Your task to perform on an android device: turn off wifi Image 0: 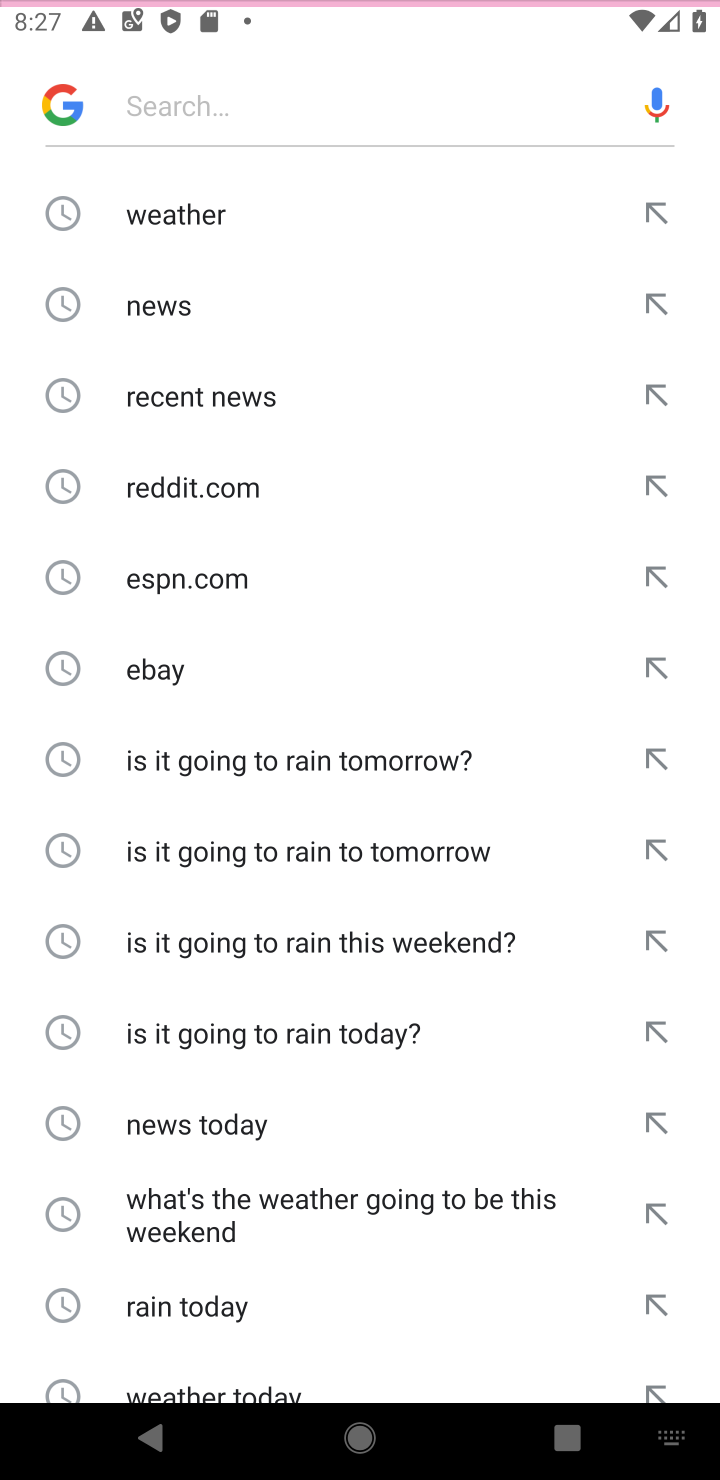
Step 0: press back button
Your task to perform on an android device: turn off wifi Image 1: 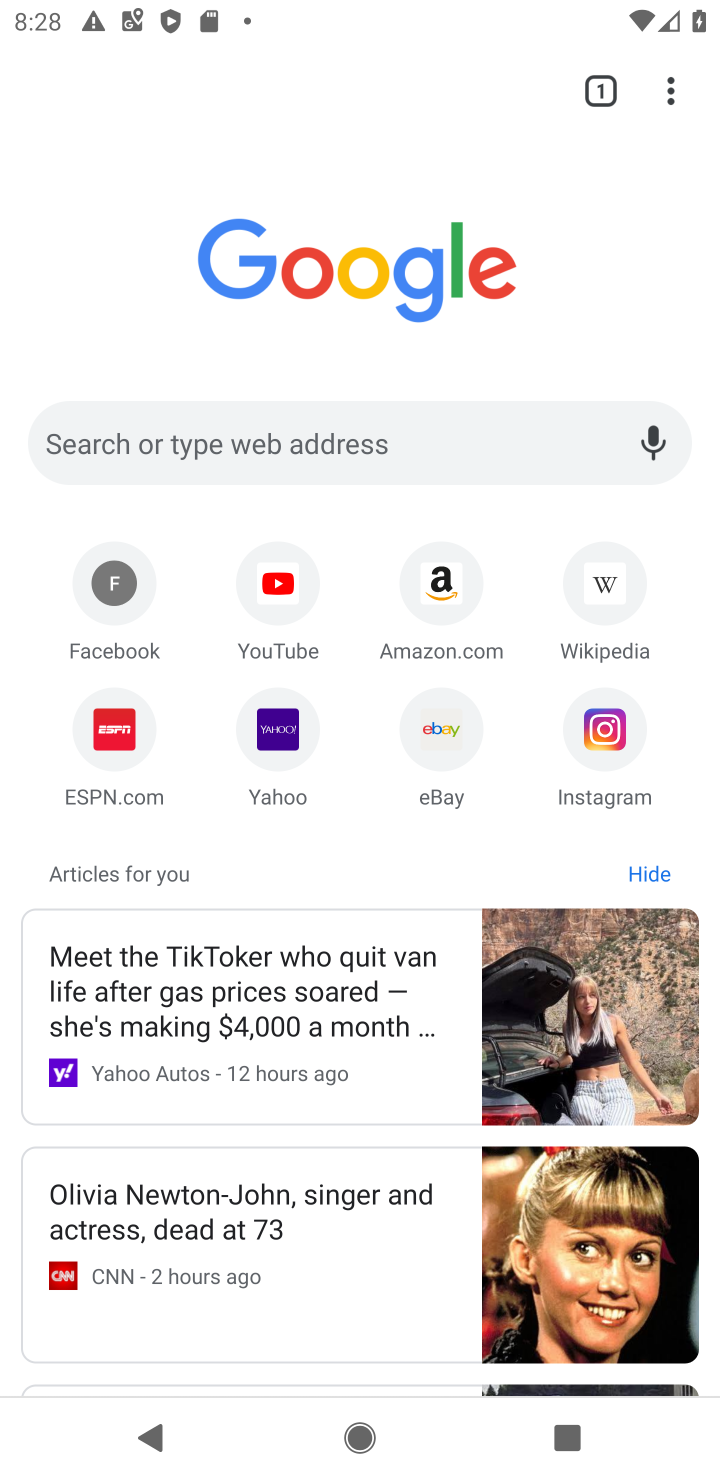
Step 1: drag from (189, 17) to (278, 1371)
Your task to perform on an android device: turn off wifi Image 2: 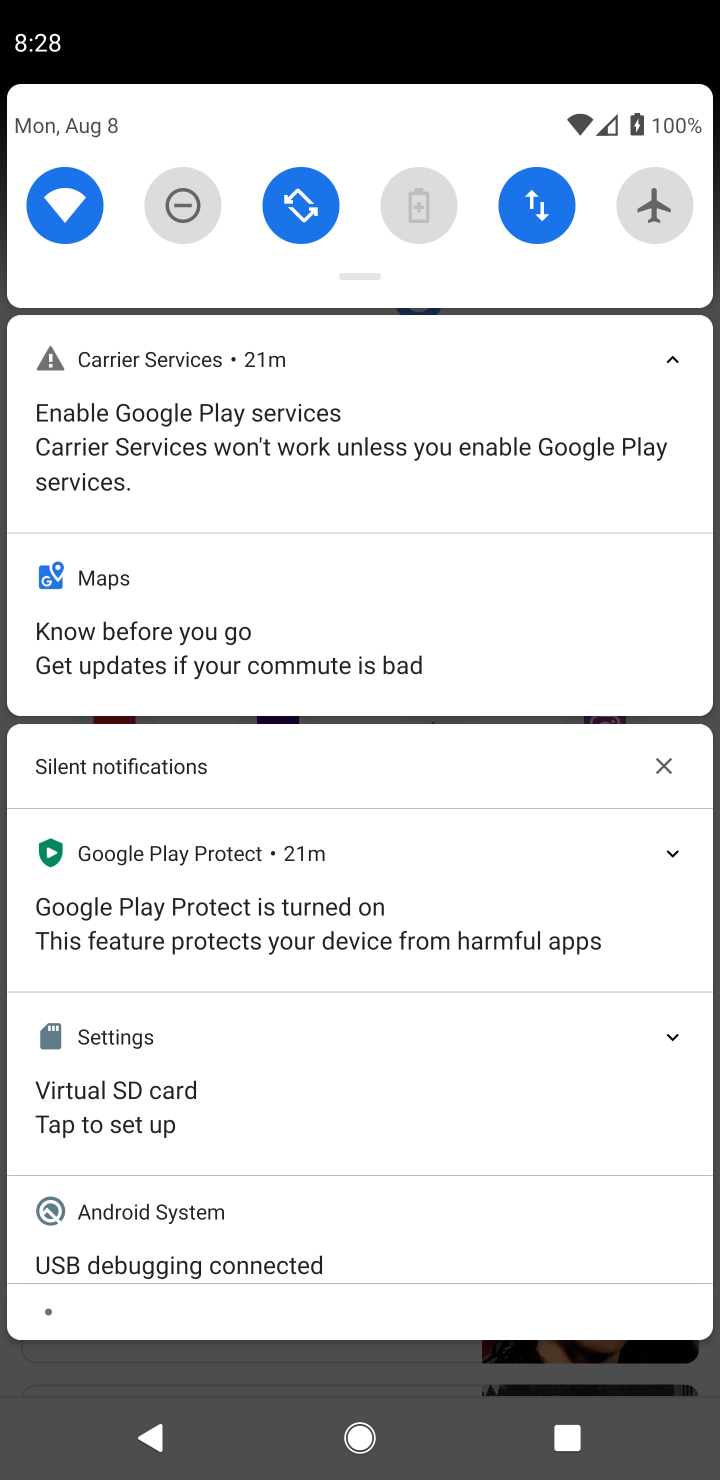
Step 2: click (72, 185)
Your task to perform on an android device: turn off wifi Image 3: 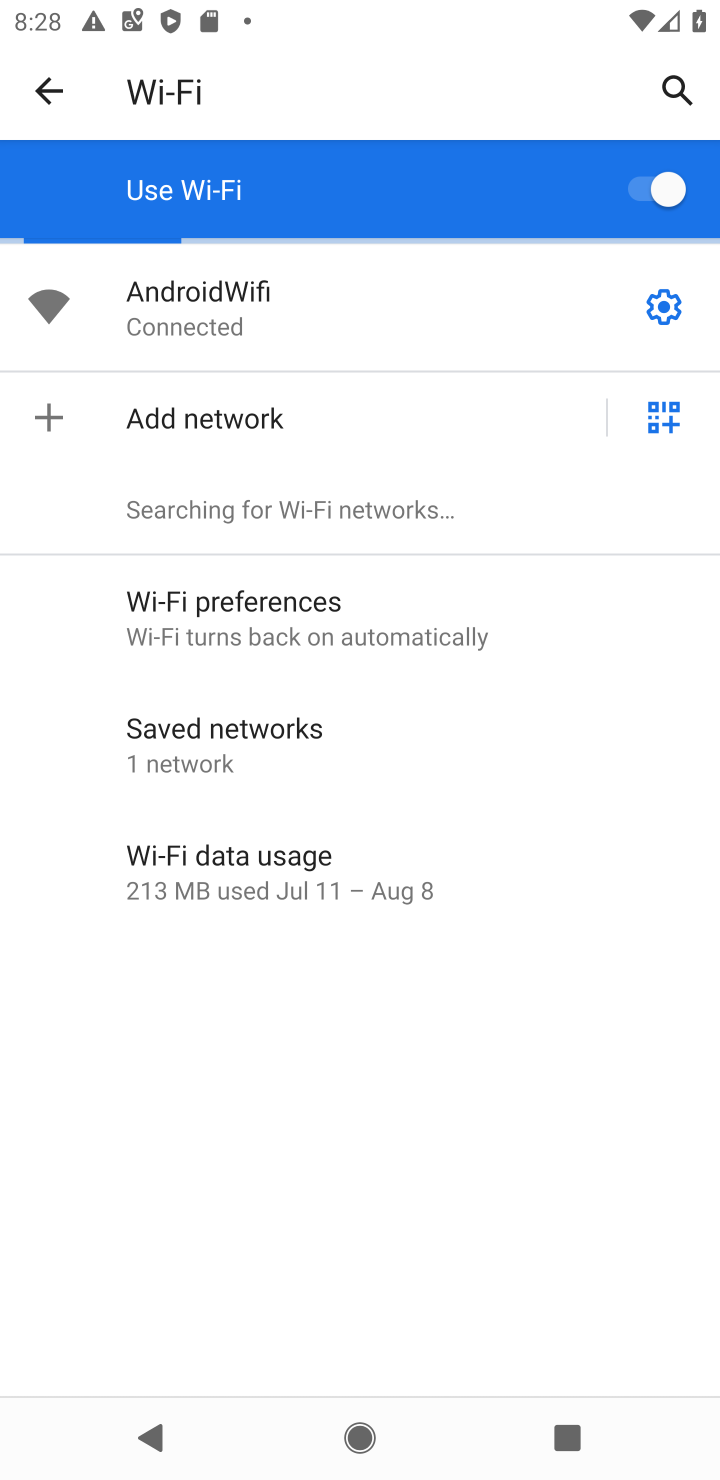
Step 3: click (665, 204)
Your task to perform on an android device: turn off wifi Image 4: 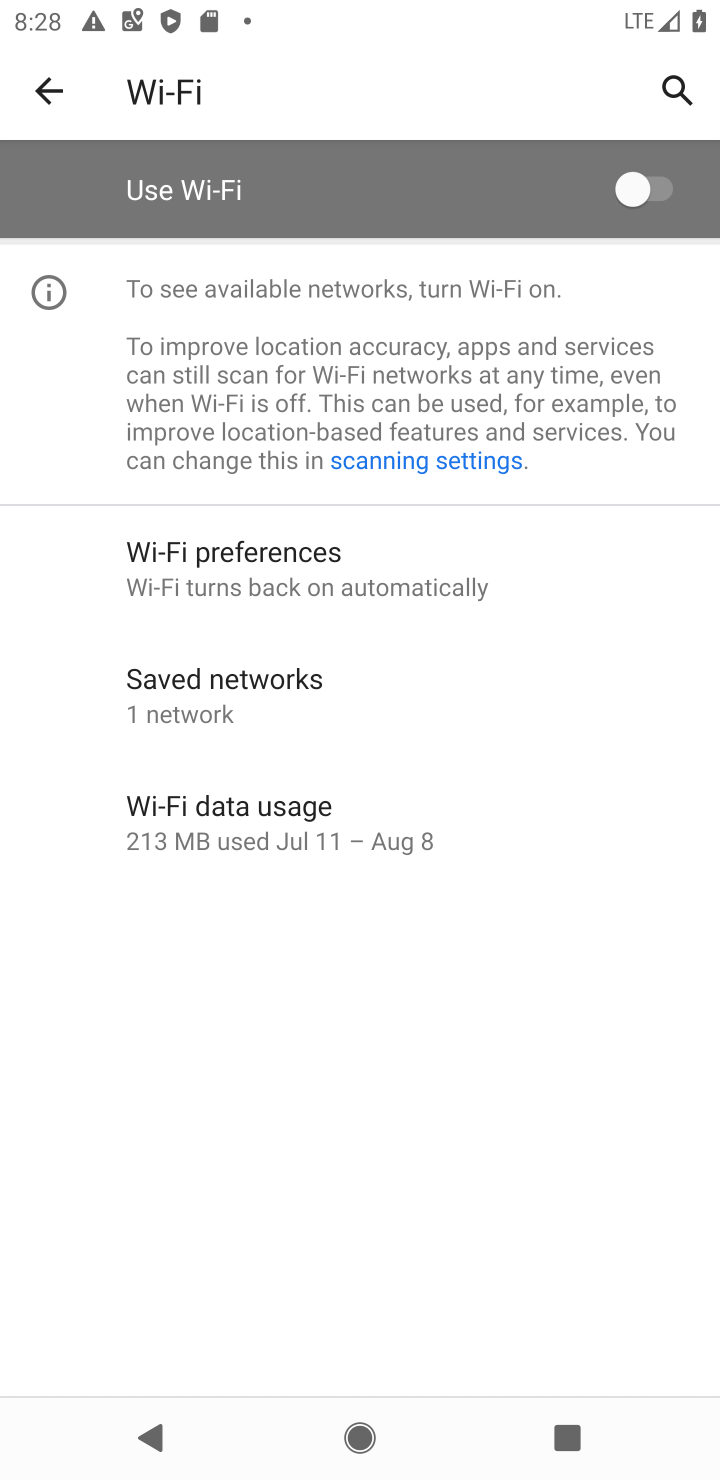
Step 4: task complete